Your task to perform on an android device: Open notification settings Image 0: 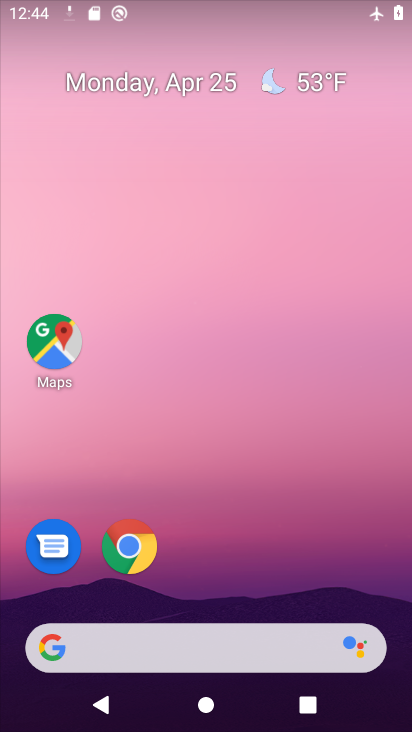
Step 0: drag from (366, 540) to (370, 166)
Your task to perform on an android device: Open notification settings Image 1: 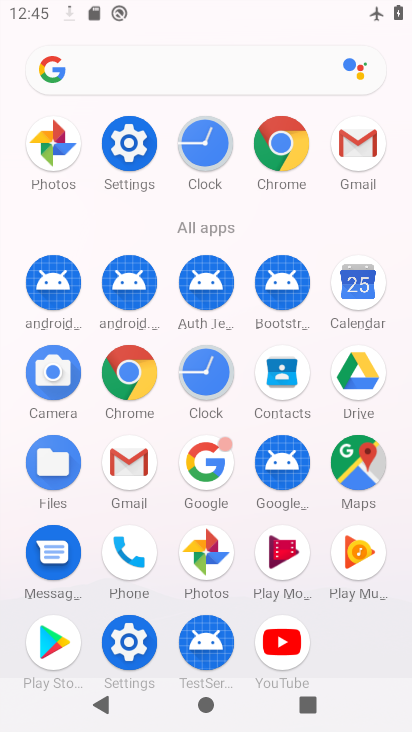
Step 1: click (122, 646)
Your task to perform on an android device: Open notification settings Image 2: 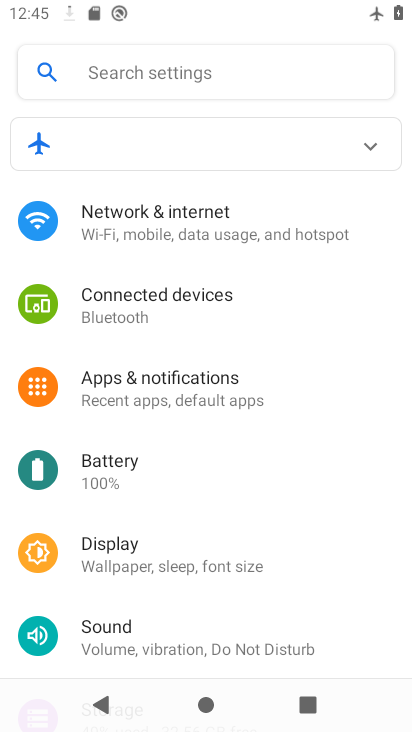
Step 2: click (98, 408)
Your task to perform on an android device: Open notification settings Image 3: 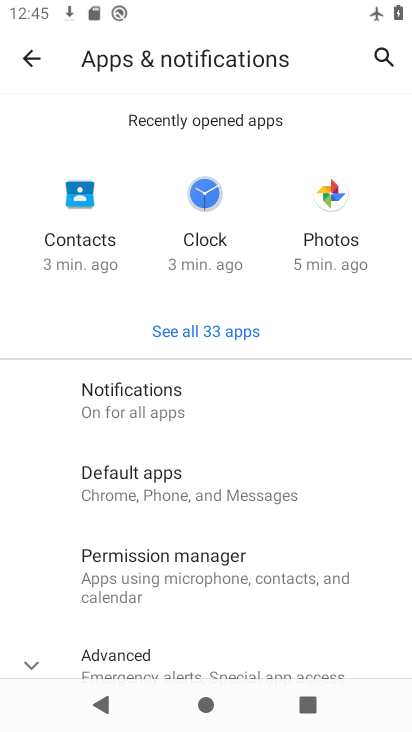
Step 3: task complete